Your task to perform on an android device: Go to internet settings Image 0: 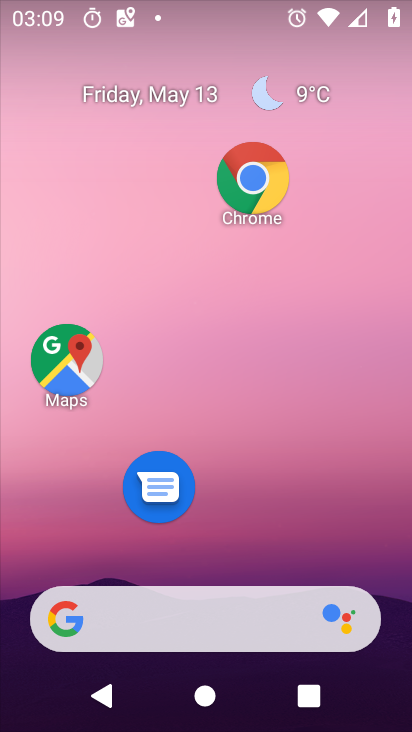
Step 0: drag from (273, 451) to (262, 107)
Your task to perform on an android device: Go to internet settings Image 1: 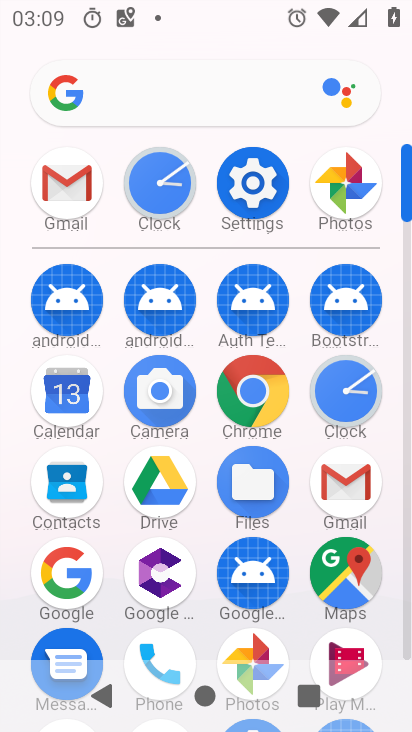
Step 1: click (238, 198)
Your task to perform on an android device: Go to internet settings Image 2: 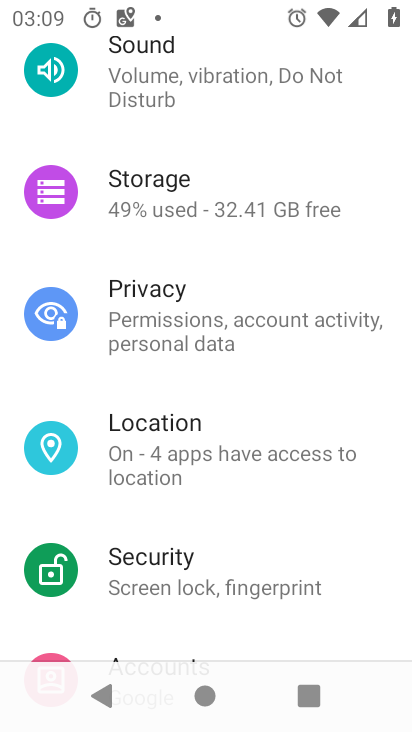
Step 2: drag from (207, 170) to (315, 725)
Your task to perform on an android device: Go to internet settings Image 3: 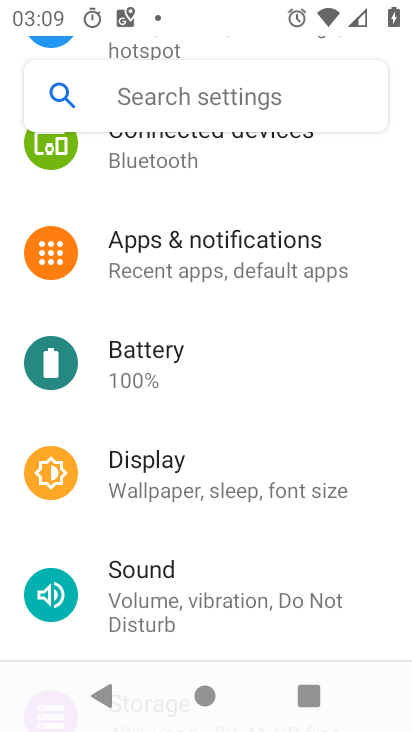
Step 3: drag from (202, 200) to (243, 661)
Your task to perform on an android device: Go to internet settings Image 4: 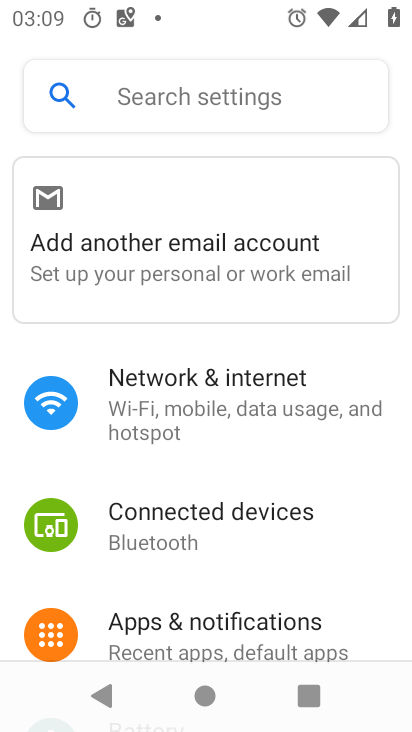
Step 4: click (232, 404)
Your task to perform on an android device: Go to internet settings Image 5: 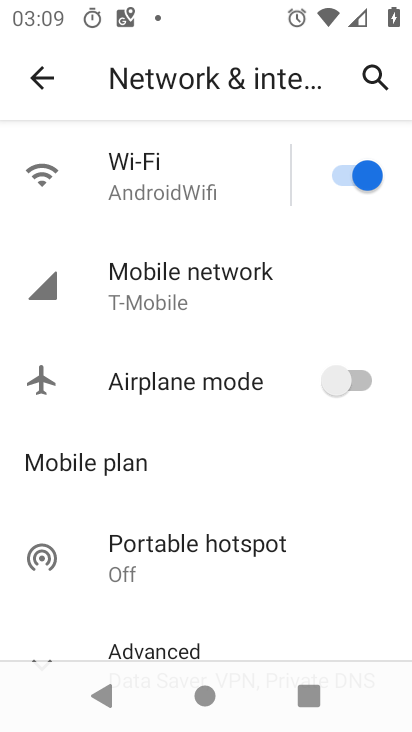
Step 5: click (147, 179)
Your task to perform on an android device: Go to internet settings Image 6: 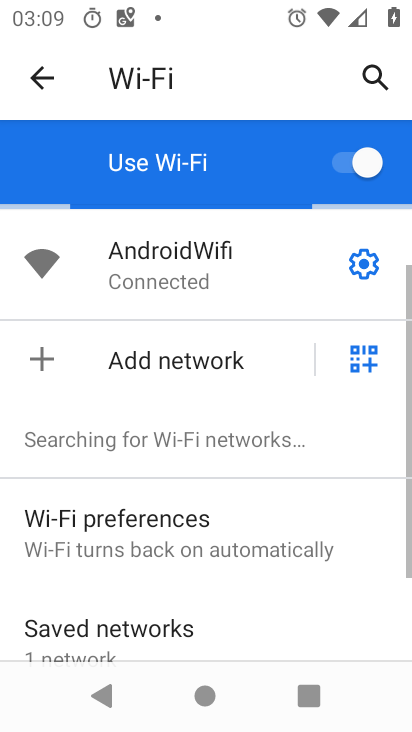
Step 6: click (357, 257)
Your task to perform on an android device: Go to internet settings Image 7: 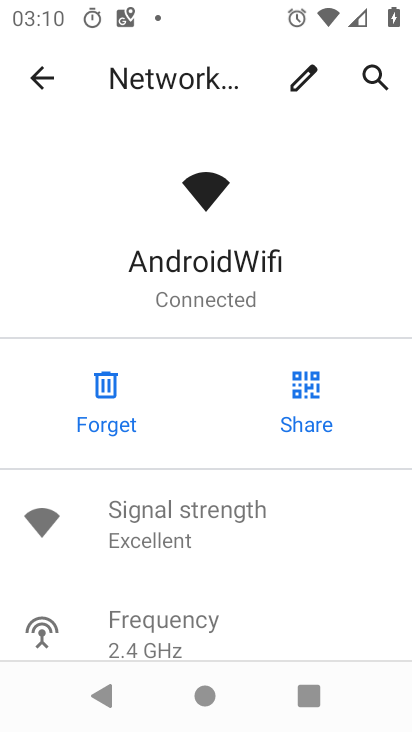
Step 7: task complete